Your task to perform on an android device: set the timer Image 0: 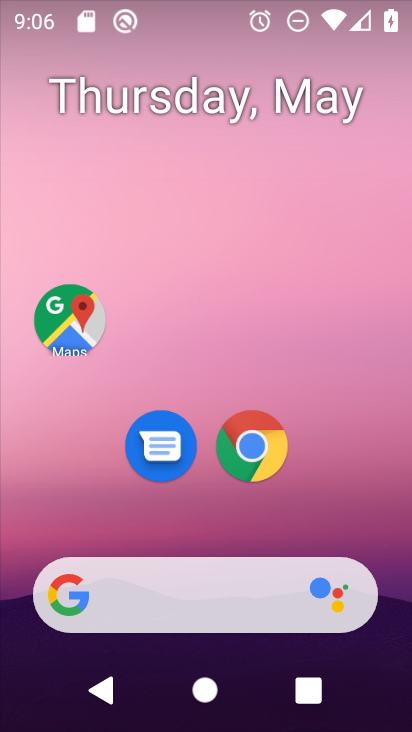
Step 0: drag from (363, 513) to (334, 75)
Your task to perform on an android device: set the timer Image 1: 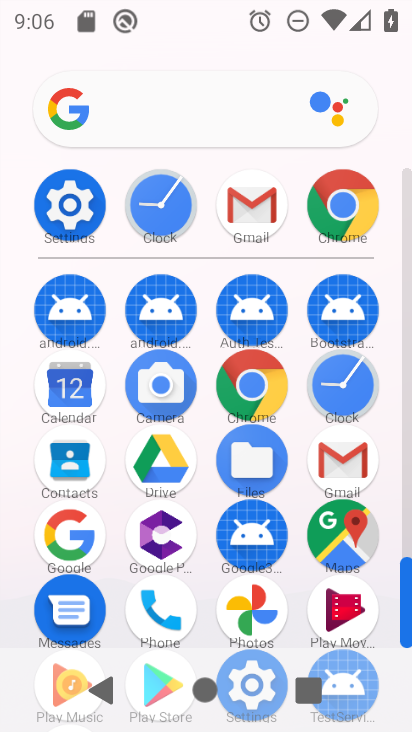
Step 1: click (345, 410)
Your task to perform on an android device: set the timer Image 2: 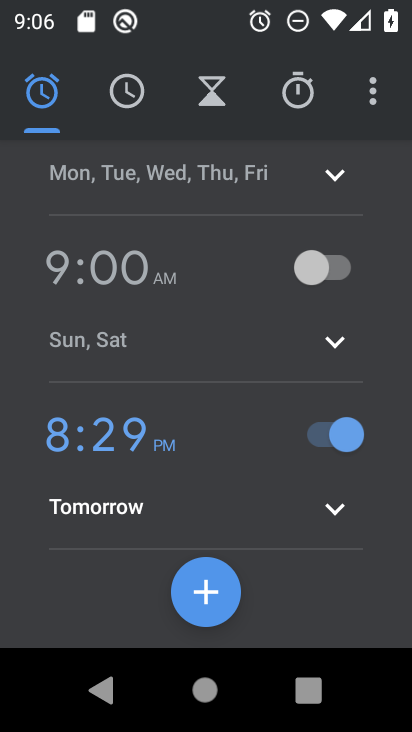
Step 2: click (193, 95)
Your task to perform on an android device: set the timer Image 3: 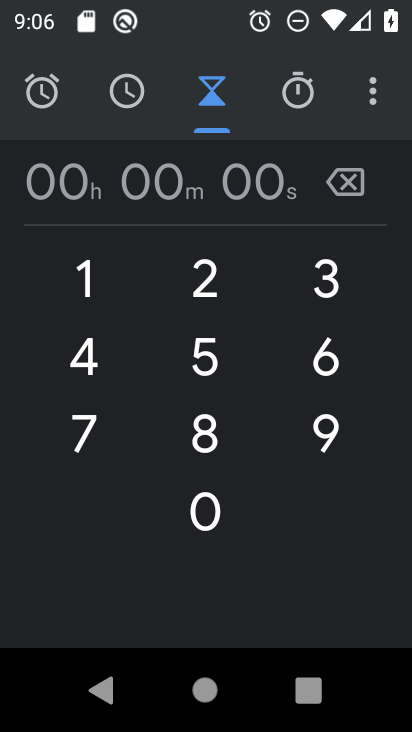
Step 3: click (97, 277)
Your task to perform on an android device: set the timer Image 4: 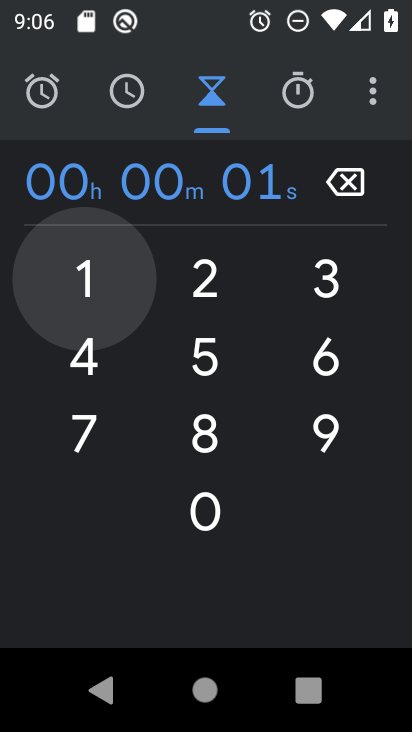
Step 4: click (200, 337)
Your task to perform on an android device: set the timer Image 5: 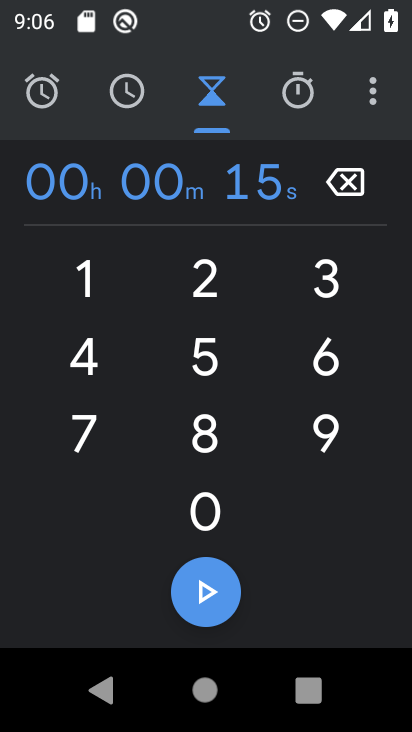
Step 5: click (216, 602)
Your task to perform on an android device: set the timer Image 6: 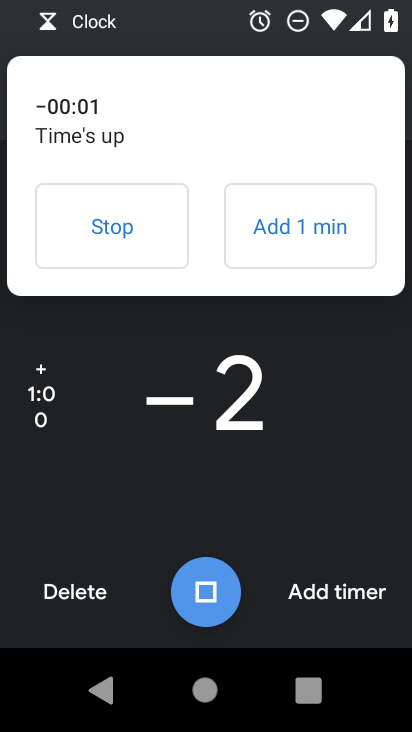
Step 6: click (124, 251)
Your task to perform on an android device: set the timer Image 7: 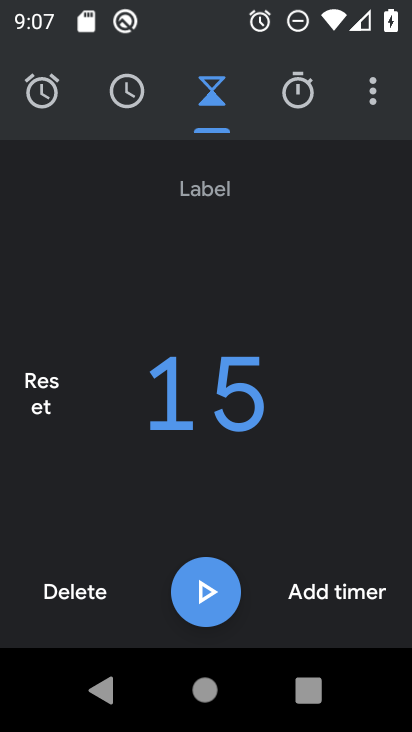
Step 7: task complete